Your task to perform on an android device: Go to location settings Image 0: 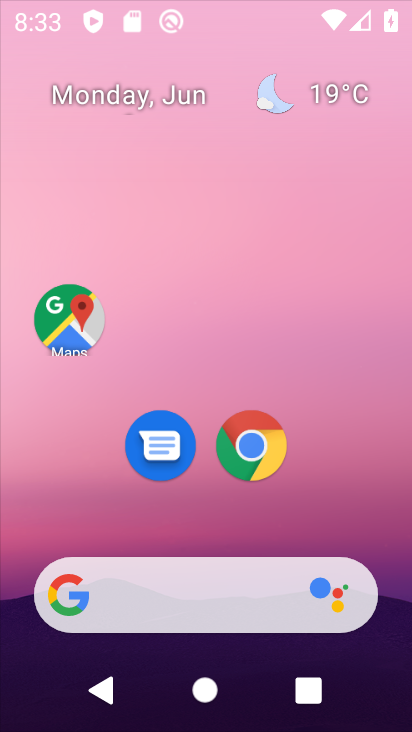
Step 0: click (196, 86)
Your task to perform on an android device: Go to location settings Image 1: 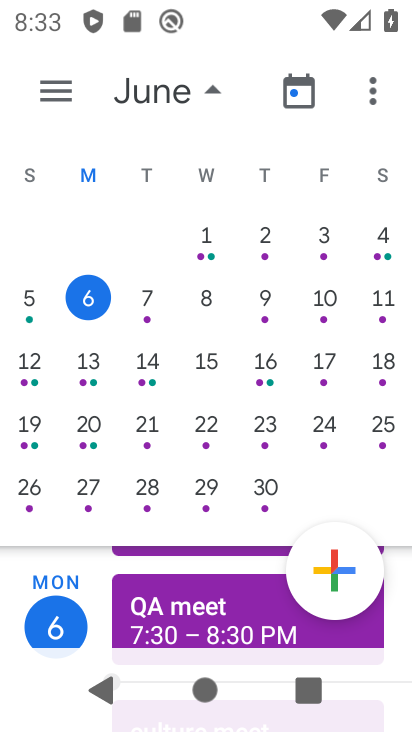
Step 1: press home button
Your task to perform on an android device: Go to location settings Image 2: 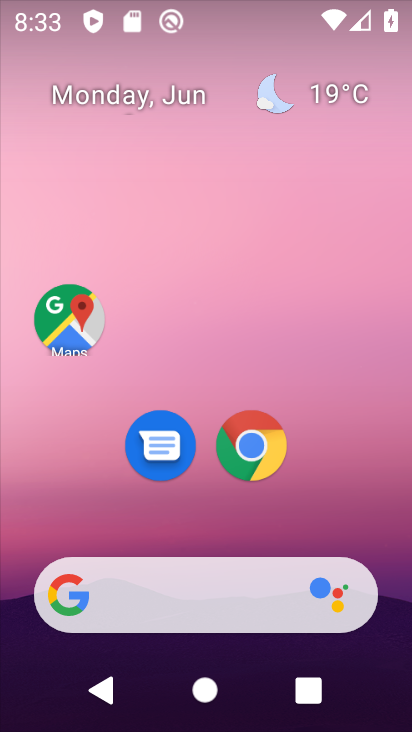
Step 2: drag from (198, 605) to (295, 96)
Your task to perform on an android device: Go to location settings Image 3: 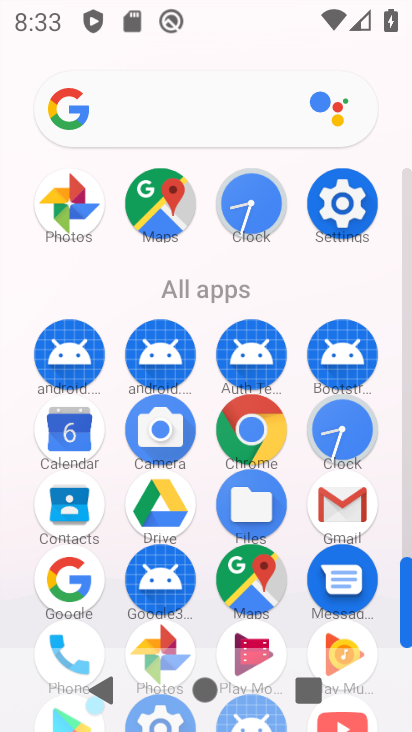
Step 3: drag from (170, 658) to (238, 363)
Your task to perform on an android device: Go to location settings Image 4: 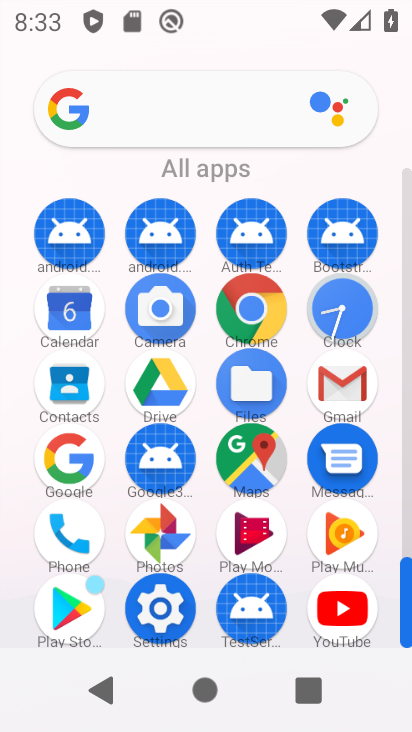
Step 4: click (161, 625)
Your task to perform on an android device: Go to location settings Image 5: 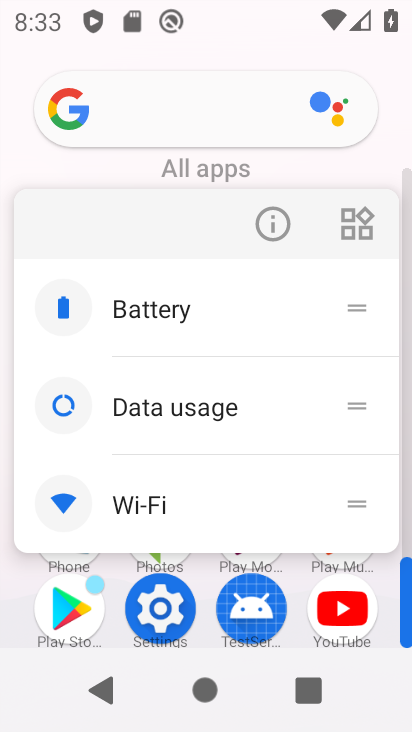
Step 5: click (163, 627)
Your task to perform on an android device: Go to location settings Image 6: 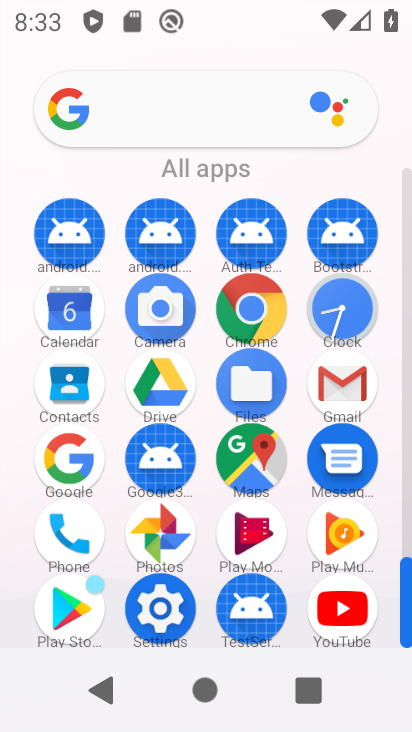
Step 6: click (165, 614)
Your task to perform on an android device: Go to location settings Image 7: 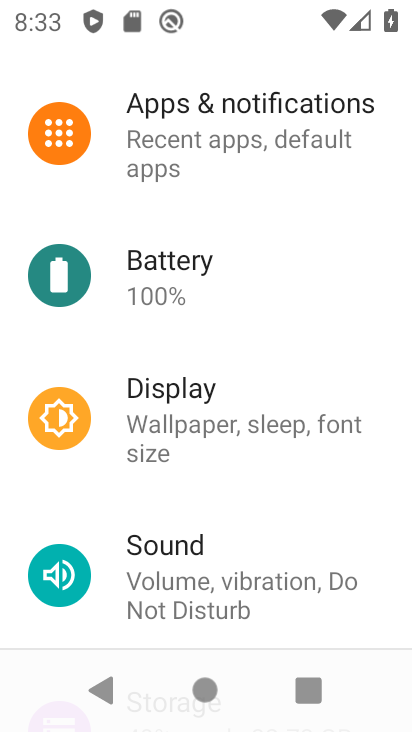
Step 7: drag from (218, 616) to (400, 24)
Your task to perform on an android device: Go to location settings Image 8: 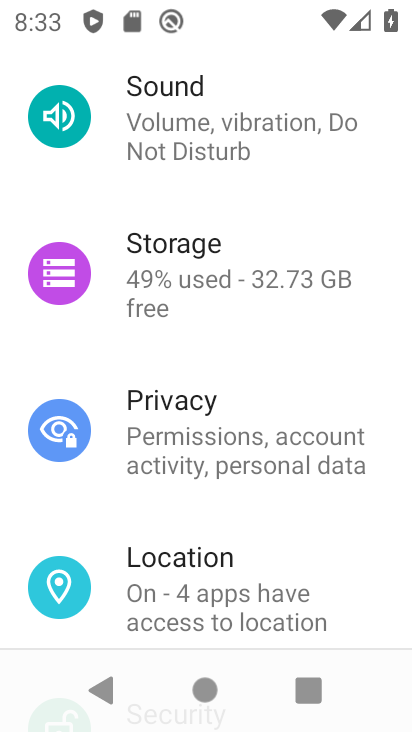
Step 8: drag from (236, 533) to (309, 243)
Your task to perform on an android device: Go to location settings Image 9: 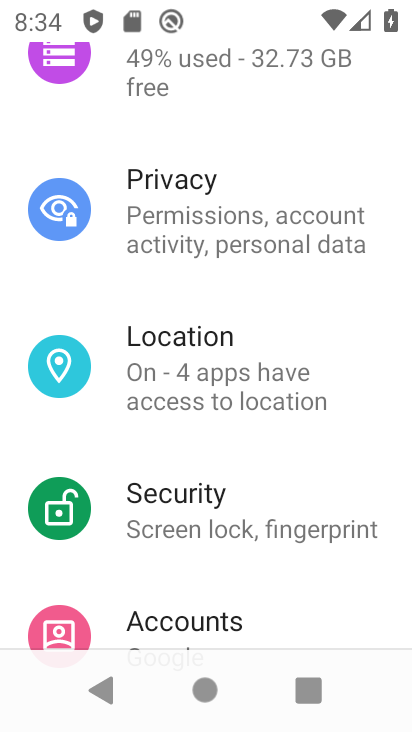
Step 9: click (275, 395)
Your task to perform on an android device: Go to location settings Image 10: 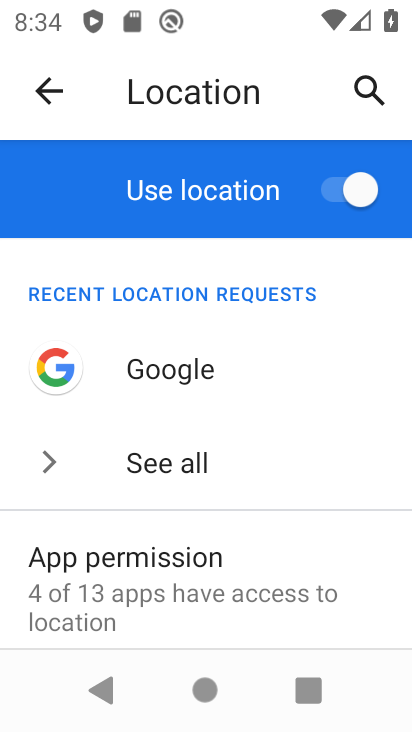
Step 10: task complete